Your task to perform on an android device: turn off location history Image 0: 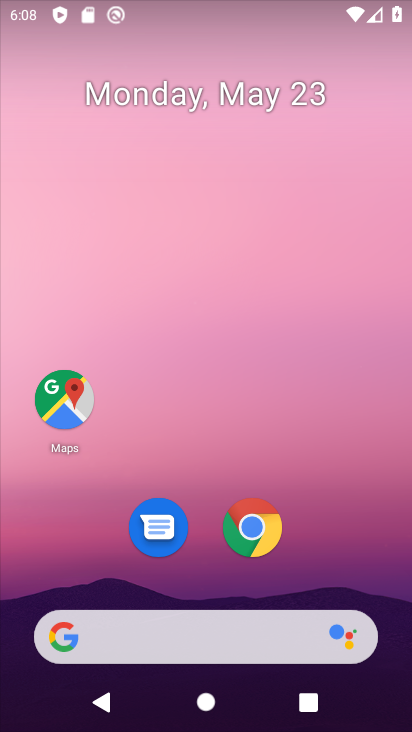
Step 0: click (64, 407)
Your task to perform on an android device: turn off location history Image 1: 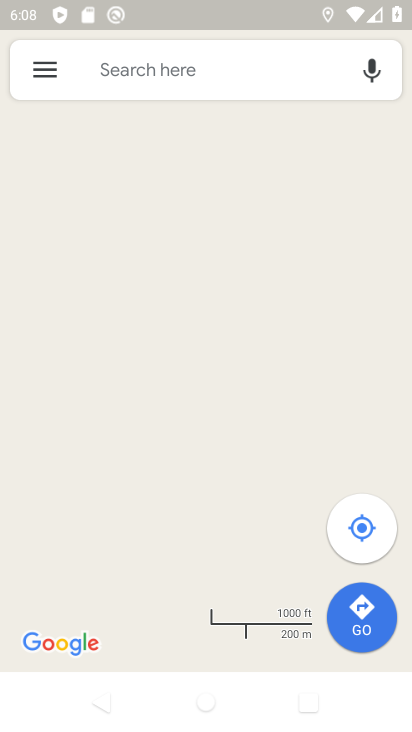
Step 1: click (33, 72)
Your task to perform on an android device: turn off location history Image 2: 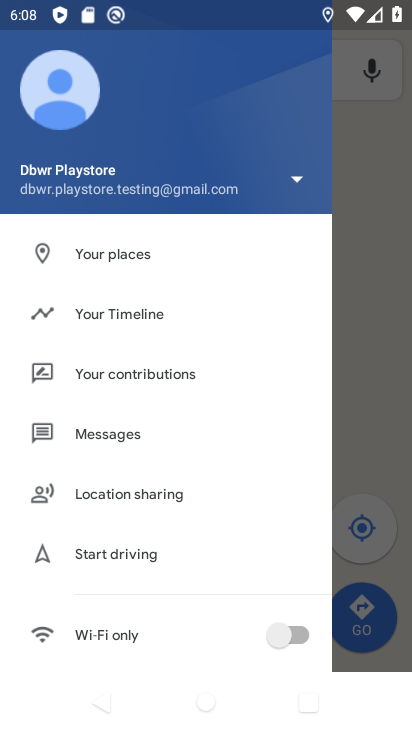
Step 2: click (147, 308)
Your task to perform on an android device: turn off location history Image 3: 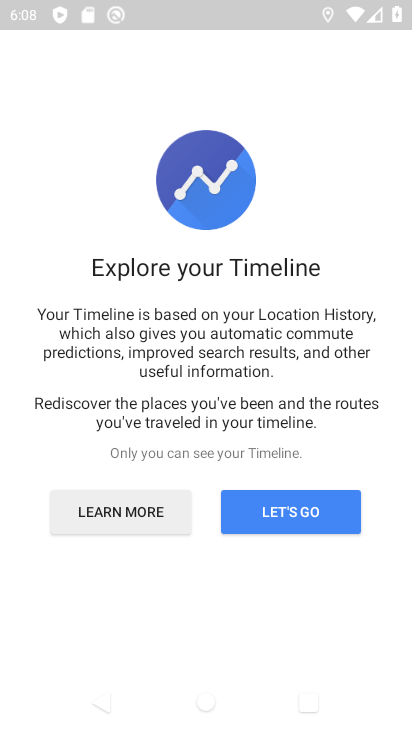
Step 3: click (301, 511)
Your task to perform on an android device: turn off location history Image 4: 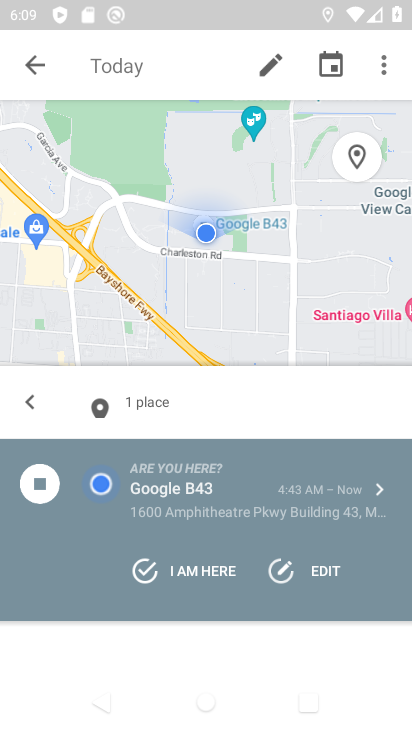
Step 4: click (379, 69)
Your task to perform on an android device: turn off location history Image 5: 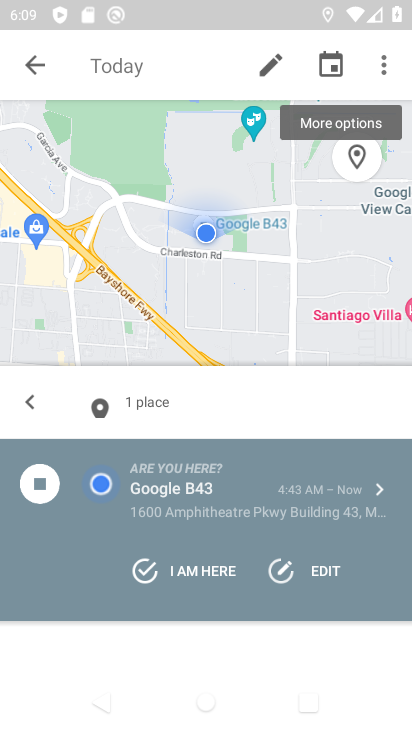
Step 5: click (391, 62)
Your task to perform on an android device: turn off location history Image 6: 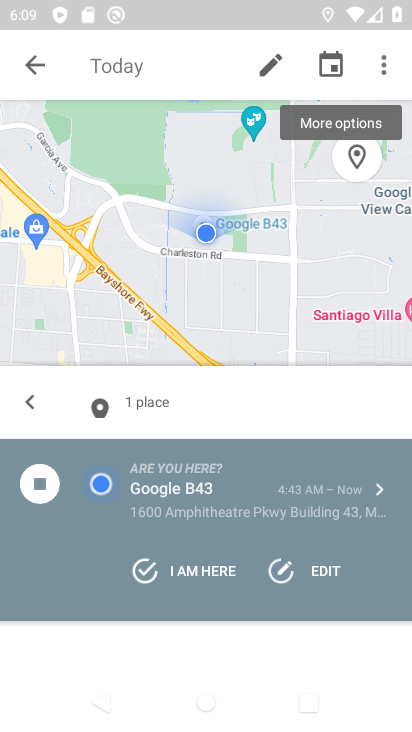
Step 6: click (389, 69)
Your task to perform on an android device: turn off location history Image 7: 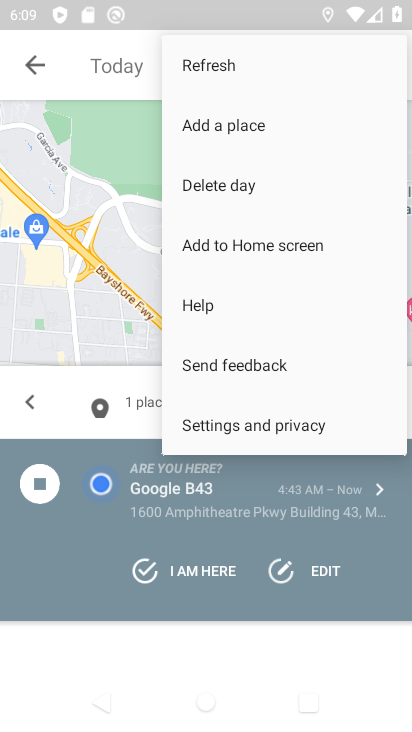
Step 7: click (266, 419)
Your task to perform on an android device: turn off location history Image 8: 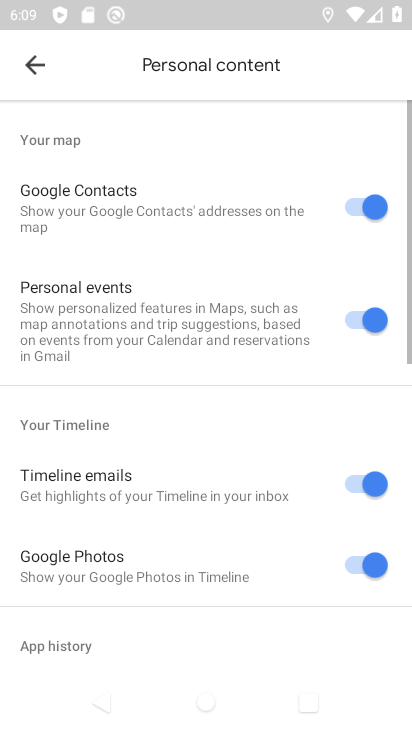
Step 8: drag from (274, 643) to (279, 190)
Your task to perform on an android device: turn off location history Image 9: 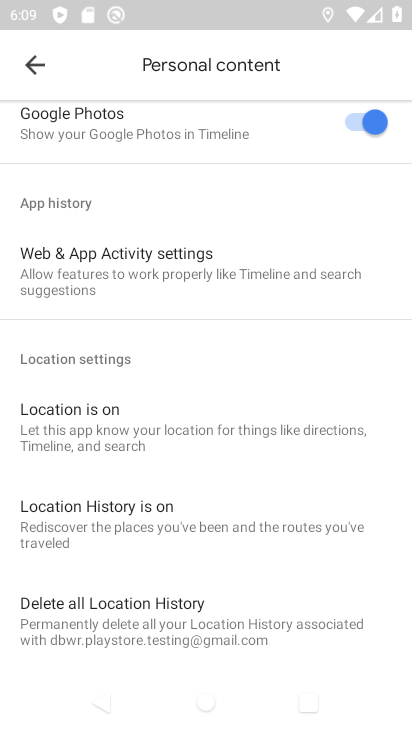
Step 9: click (119, 507)
Your task to perform on an android device: turn off location history Image 10: 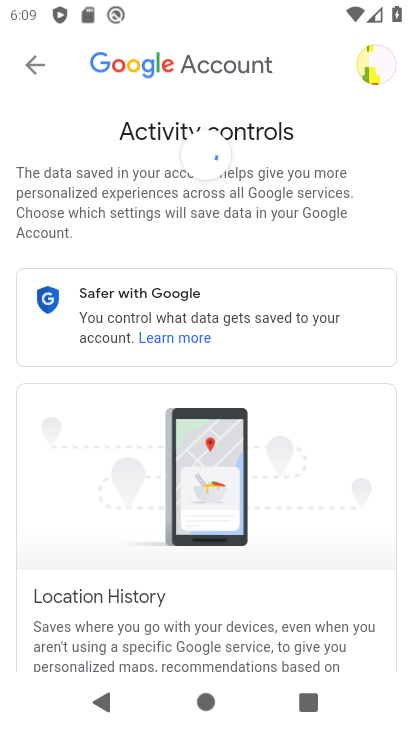
Step 10: drag from (302, 583) to (247, 246)
Your task to perform on an android device: turn off location history Image 11: 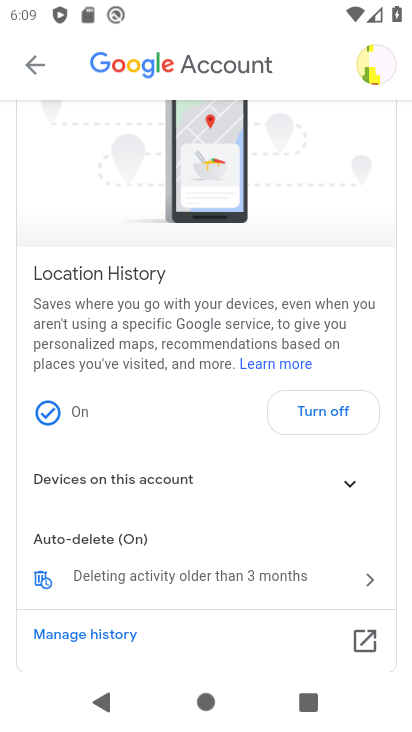
Step 11: click (326, 407)
Your task to perform on an android device: turn off location history Image 12: 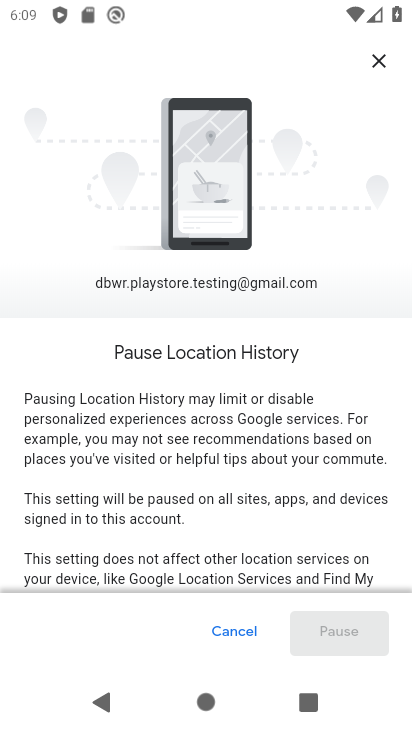
Step 12: drag from (311, 489) to (278, 180)
Your task to perform on an android device: turn off location history Image 13: 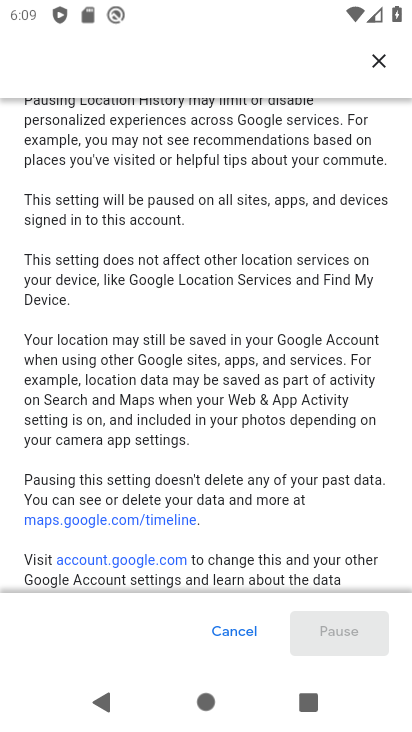
Step 13: drag from (280, 440) to (318, 148)
Your task to perform on an android device: turn off location history Image 14: 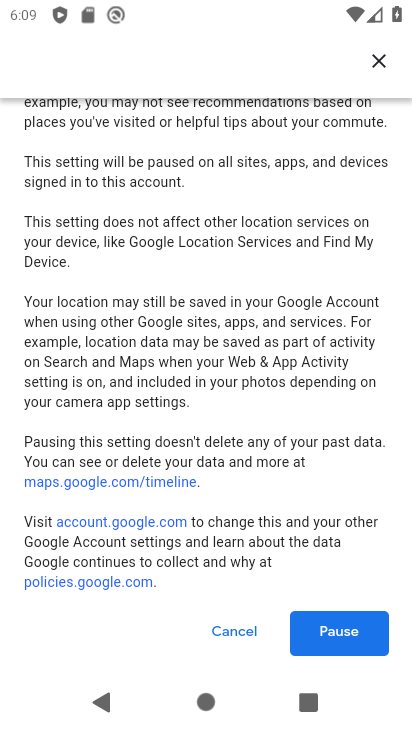
Step 14: click (350, 627)
Your task to perform on an android device: turn off location history Image 15: 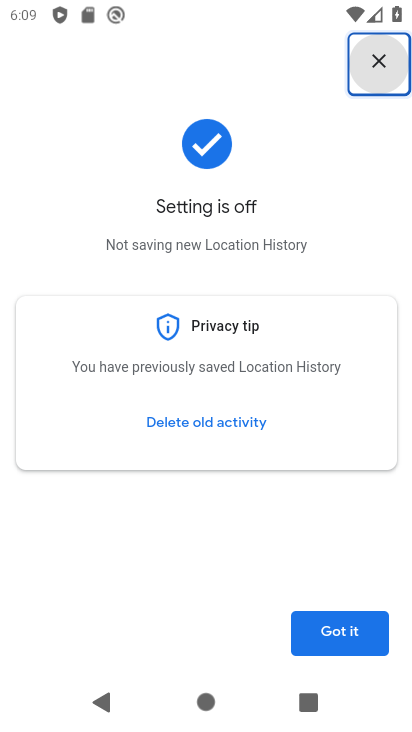
Step 15: click (314, 632)
Your task to perform on an android device: turn off location history Image 16: 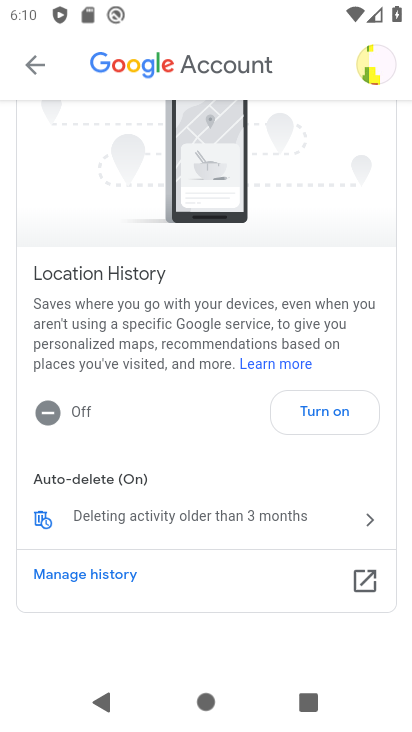
Step 16: task complete